Your task to perform on an android device: turn on translation in the chrome app Image 0: 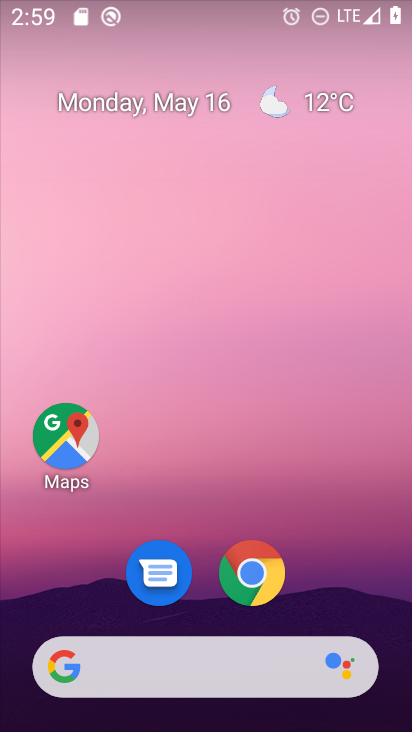
Step 0: click (229, 585)
Your task to perform on an android device: turn on translation in the chrome app Image 1: 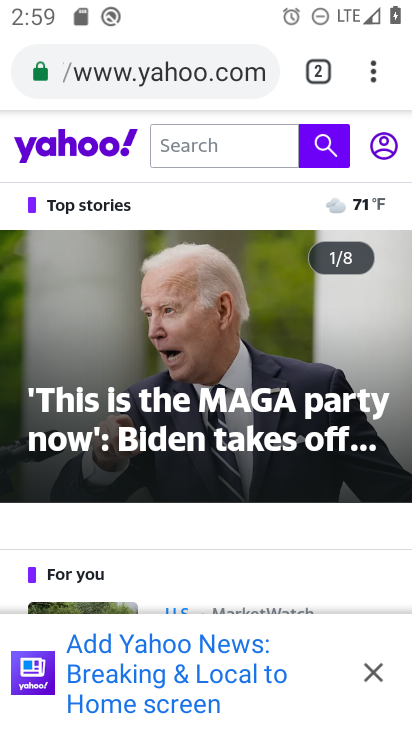
Step 1: click (363, 80)
Your task to perform on an android device: turn on translation in the chrome app Image 2: 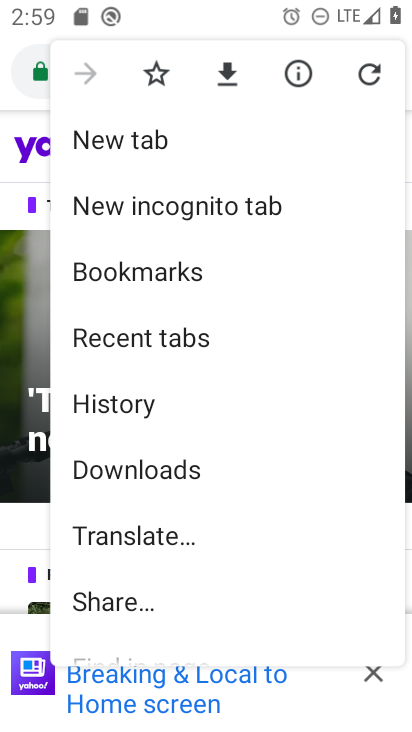
Step 2: drag from (228, 502) to (185, 291)
Your task to perform on an android device: turn on translation in the chrome app Image 3: 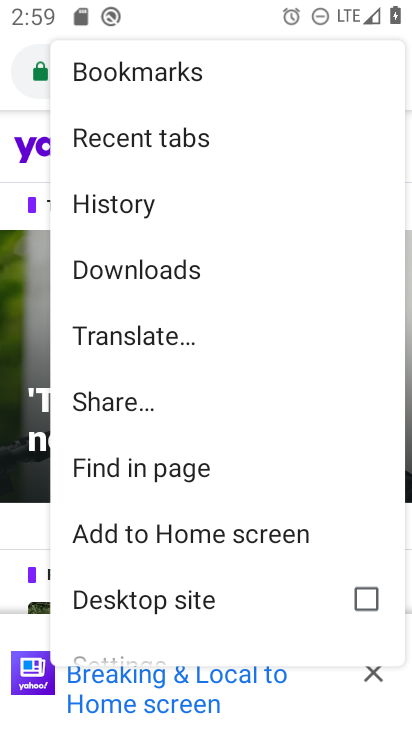
Step 3: drag from (142, 560) to (149, 100)
Your task to perform on an android device: turn on translation in the chrome app Image 4: 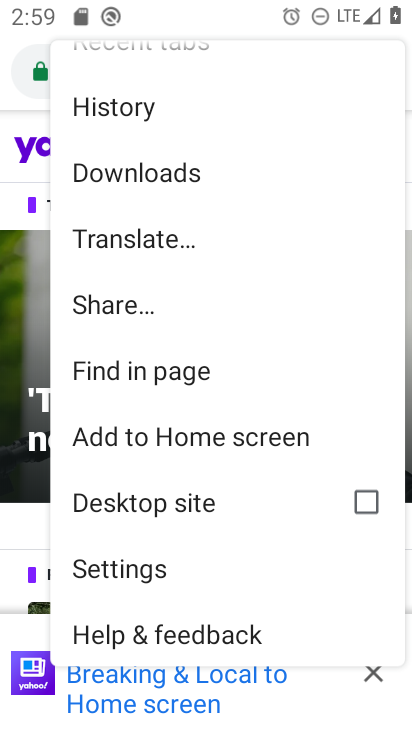
Step 4: click (141, 576)
Your task to perform on an android device: turn on translation in the chrome app Image 5: 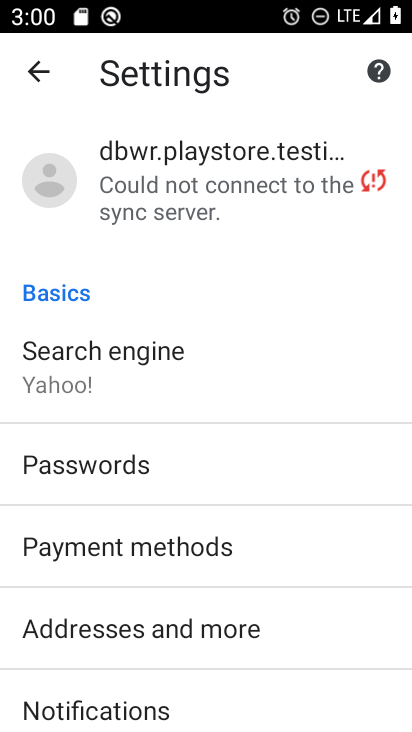
Step 5: drag from (95, 614) to (45, 5)
Your task to perform on an android device: turn on translation in the chrome app Image 6: 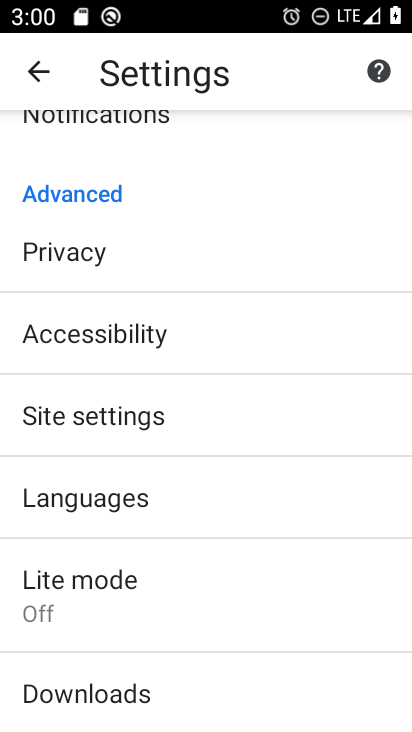
Step 6: click (168, 487)
Your task to perform on an android device: turn on translation in the chrome app Image 7: 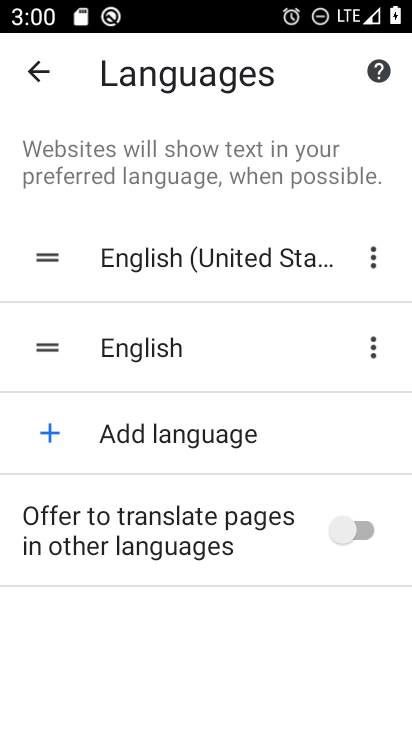
Step 7: click (339, 537)
Your task to perform on an android device: turn on translation in the chrome app Image 8: 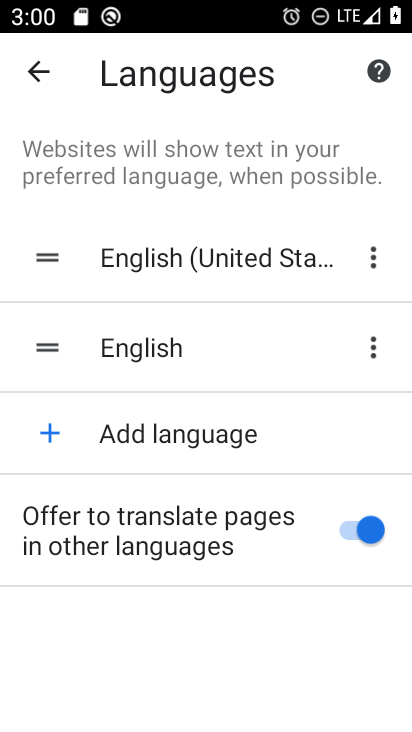
Step 8: task complete